Your task to perform on an android device: What time is it in Tokyo? Image 0: 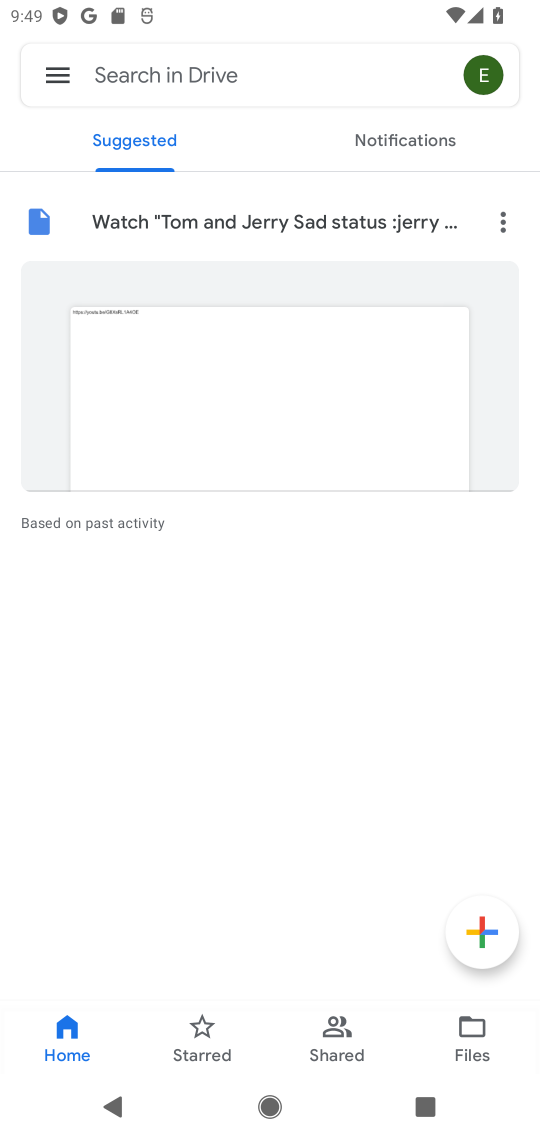
Step 0: press home button
Your task to perform on an android device: What time is it in Tokyo? Image 1: 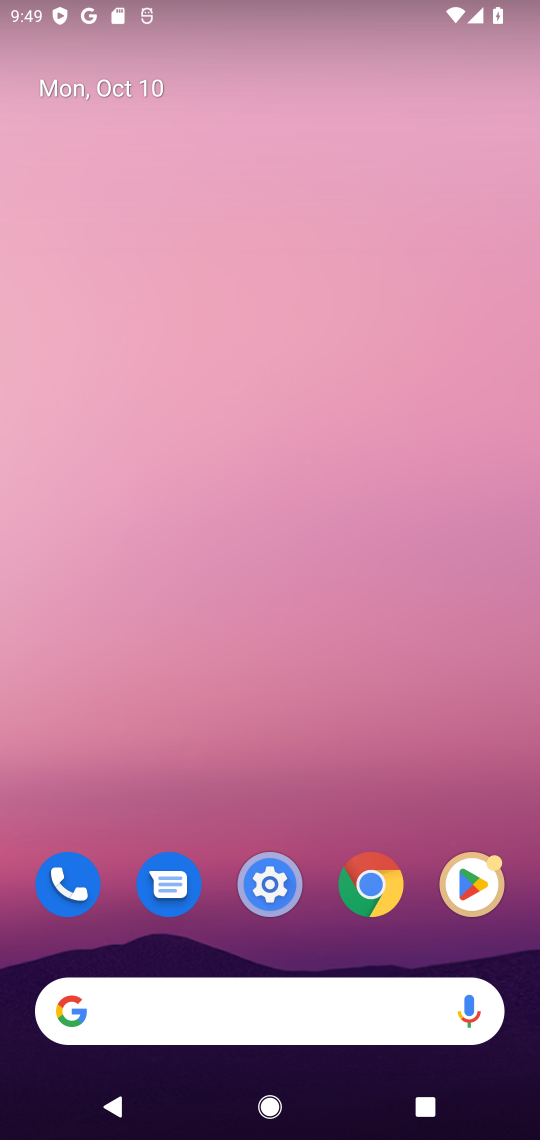
Step 1: drag from (310, 971) to (277, 192)
Your task to perform on an android device: What time is it in Tokyo? Image 2: 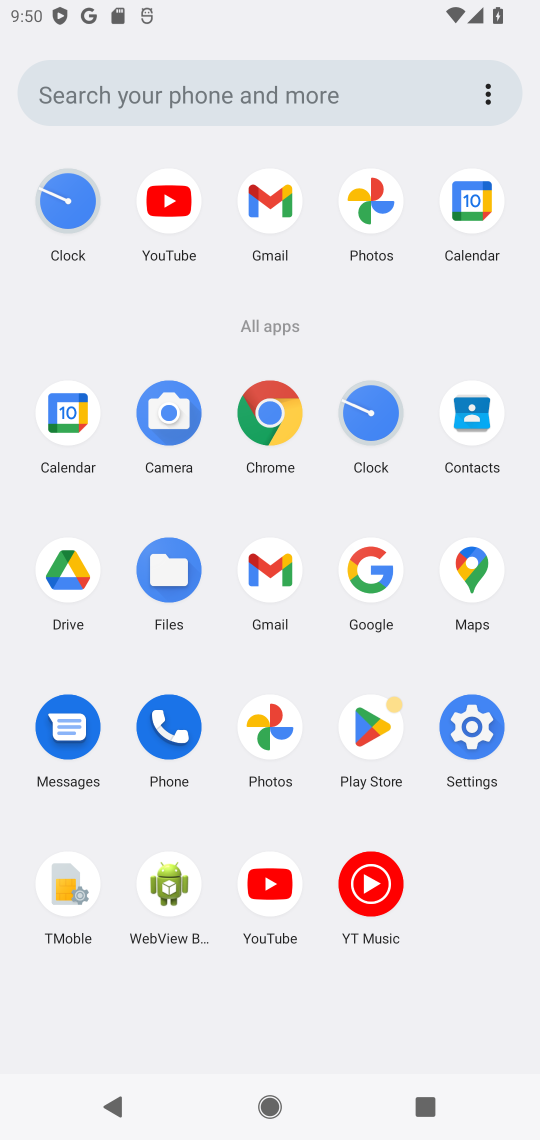
Step 2: click (269, 410)
Your task to perform on an android device: What time is it in Tokyo? Image 3: 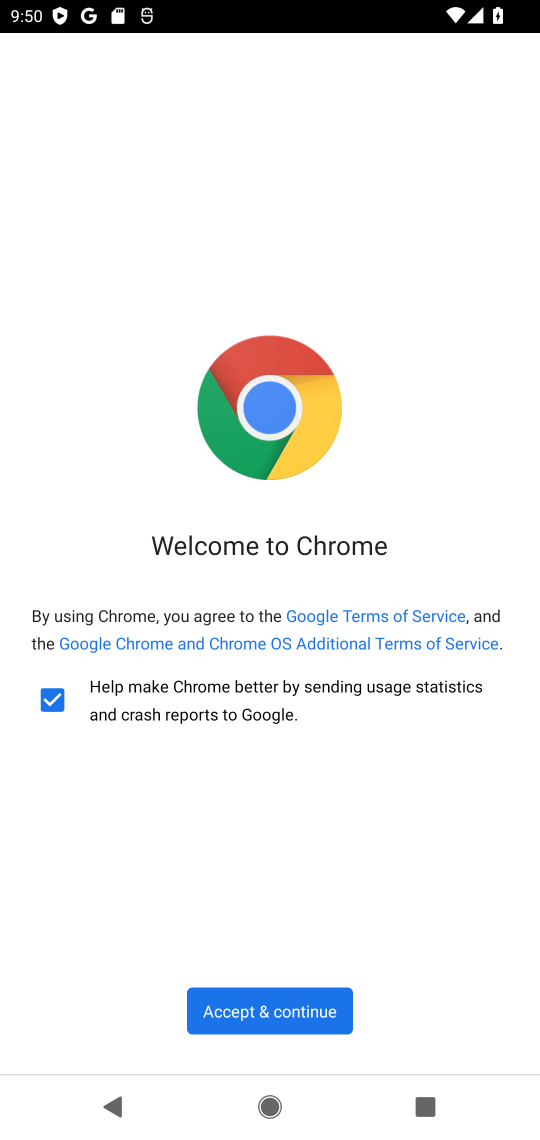
Step 3: click (305, 1013)
Your task to perform on an android device: What time is it in Tokyo? Image 4: 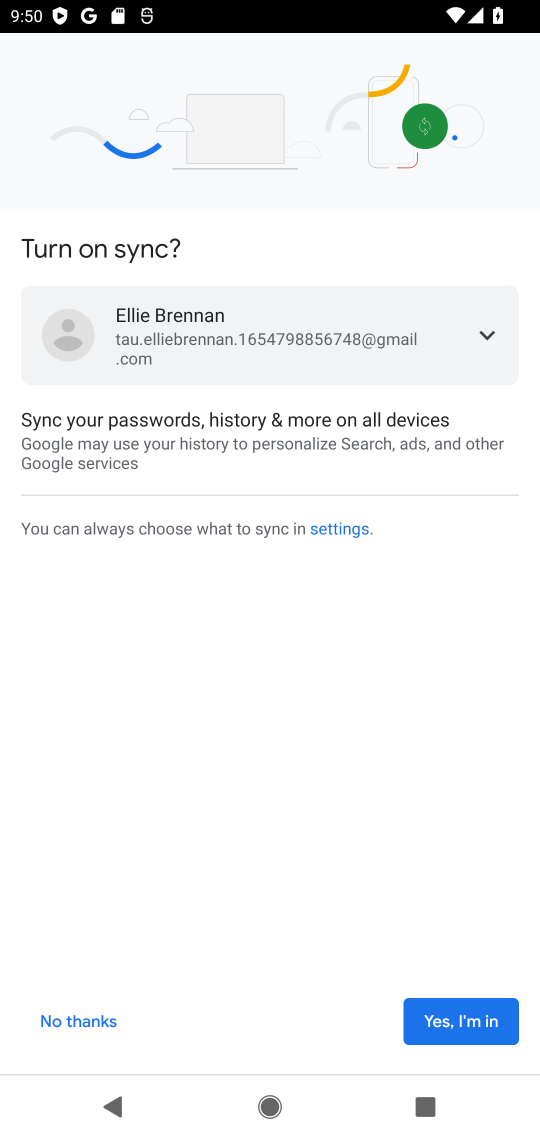
Step 4: click (434, 1030)
Your task to perform on an android device: What time is it in Tokyo? Image 5: 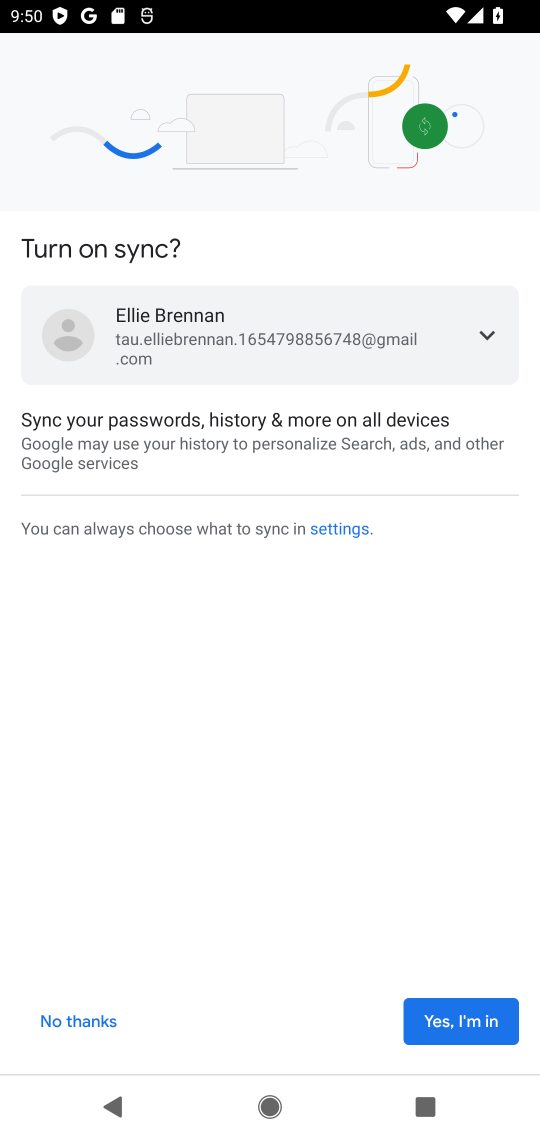
Step 5: click (445, 1025)
Your task to perform on an android device: What time is it in Tokyo? Image 6: 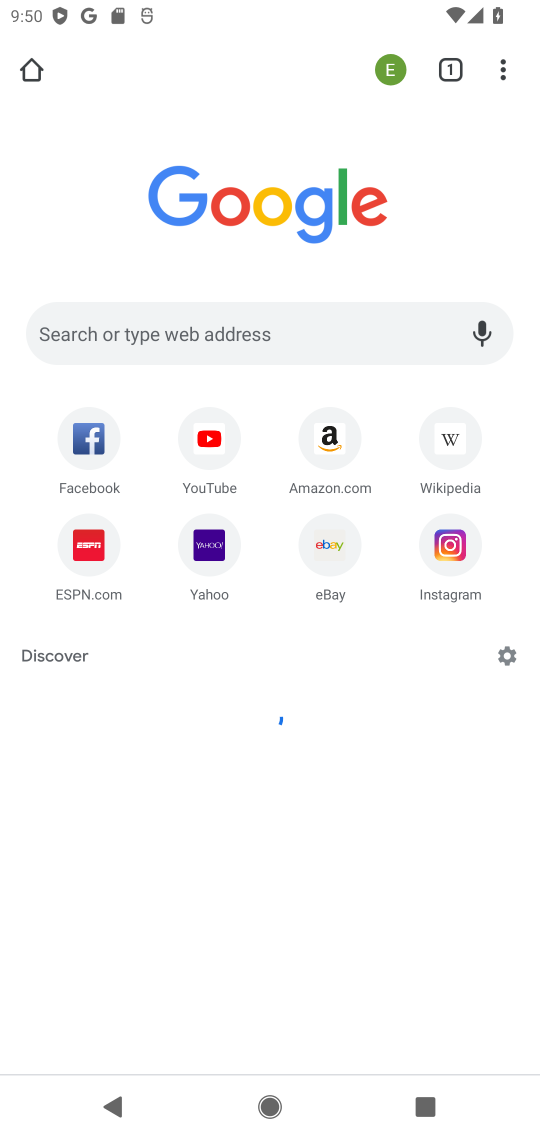
Step 6: click (268, 328)
Your task to perform on an android device: What time is it in Tokyo? Image 7: 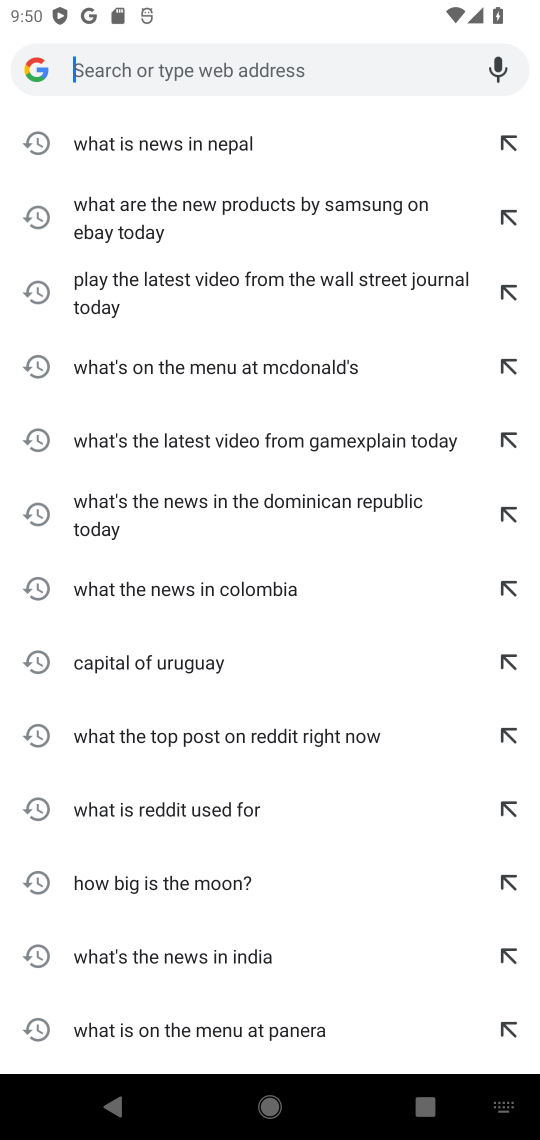
Step 7: type "What time is it in Tokyo?"
Your task to perform on an android device: What time is it in Tokyo? Image 8: 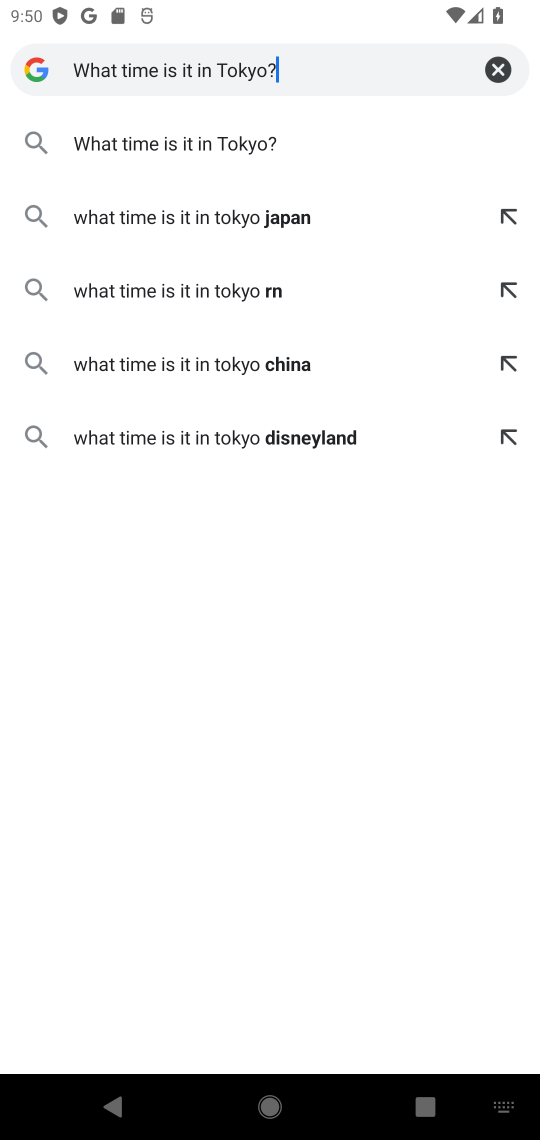
Step 8: click (177, 141)
Your task to perform on an android device: What time is it in Tokyo? Image 9: 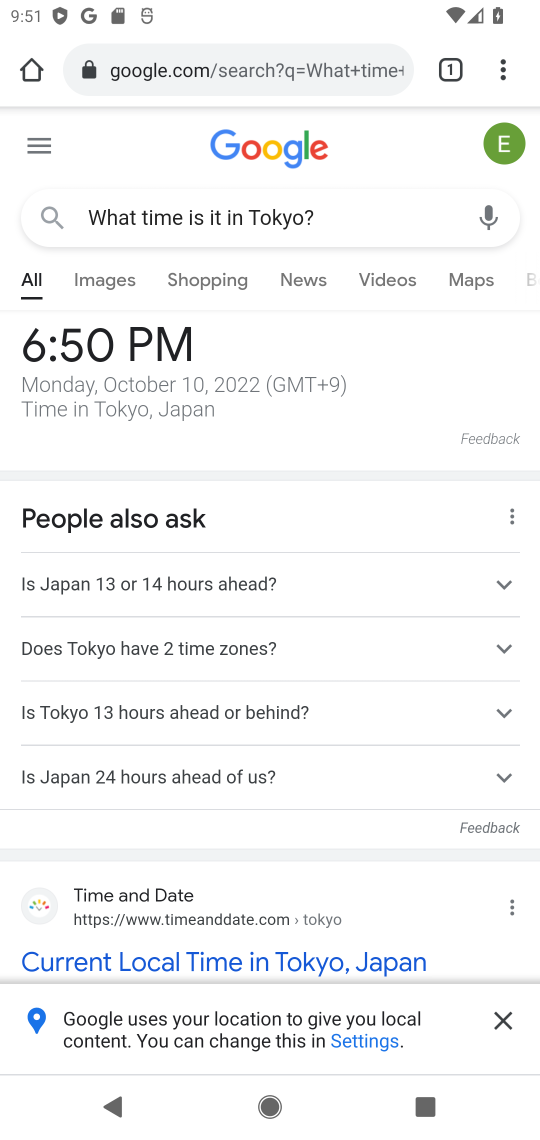
Step 9: task complete